Your task to perform on an android device: add a contact in the contacts app Image 0: 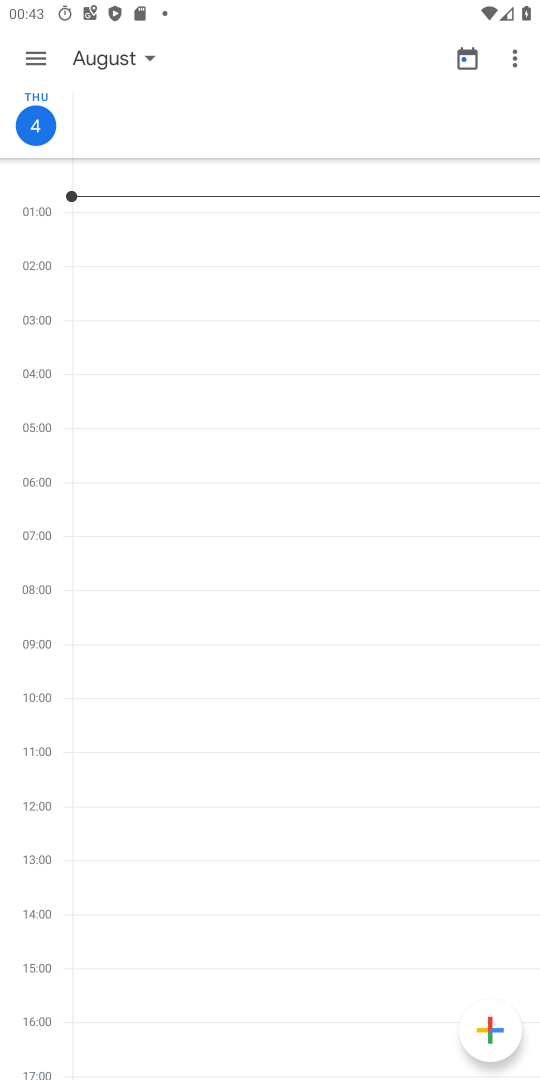
Step 0: press home button
Your task to perform on an android device: add a contact in the contacts app Image 1: 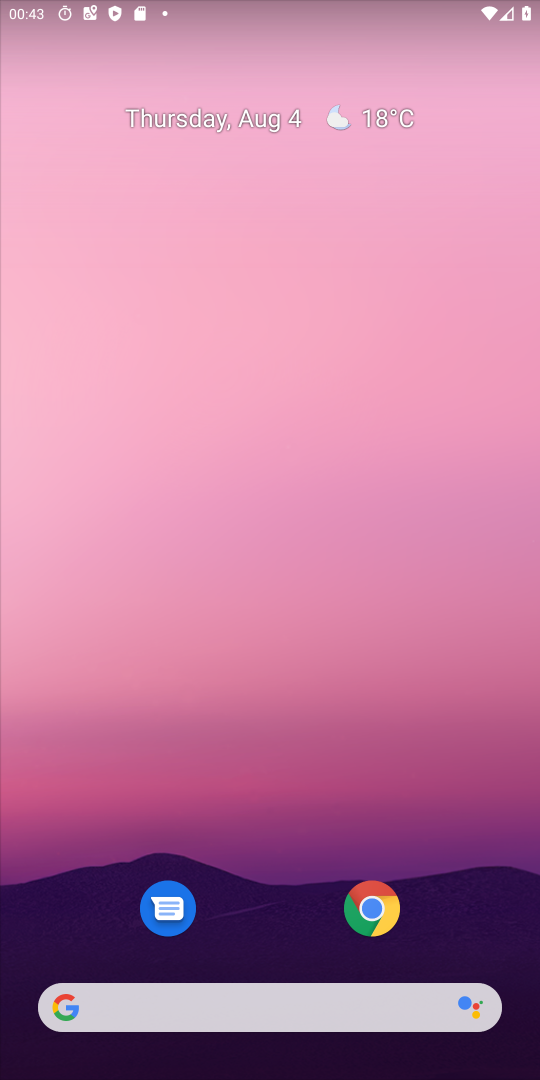
Step 1: click (268, 305)
Your task to perform on an android device: add a contact in the contacts app Image 2: 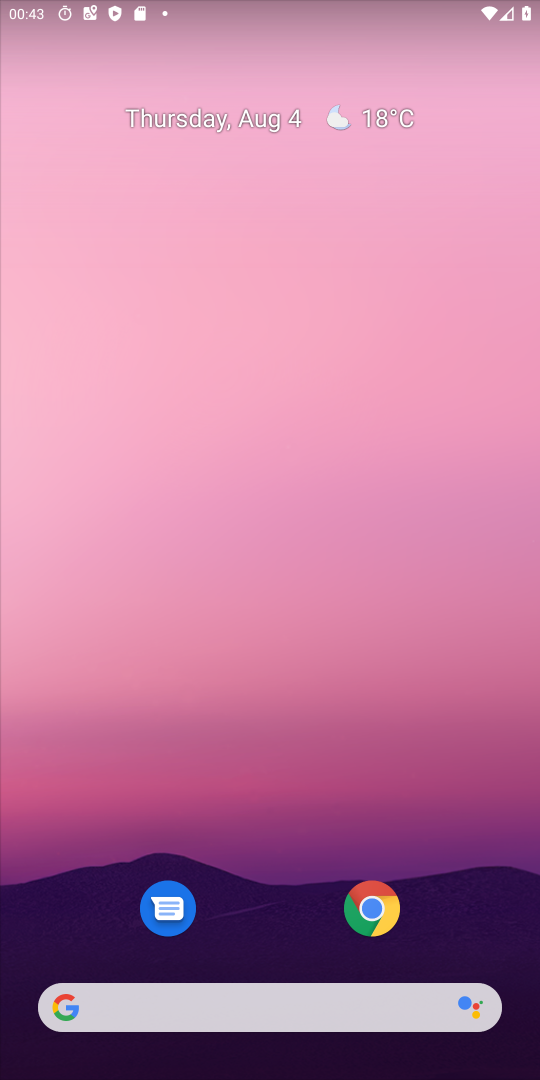
Step 2: drag from (290, 1006) to (252, 301)
Your task to perform on an android device: add a contact in the contacts app Image 3: 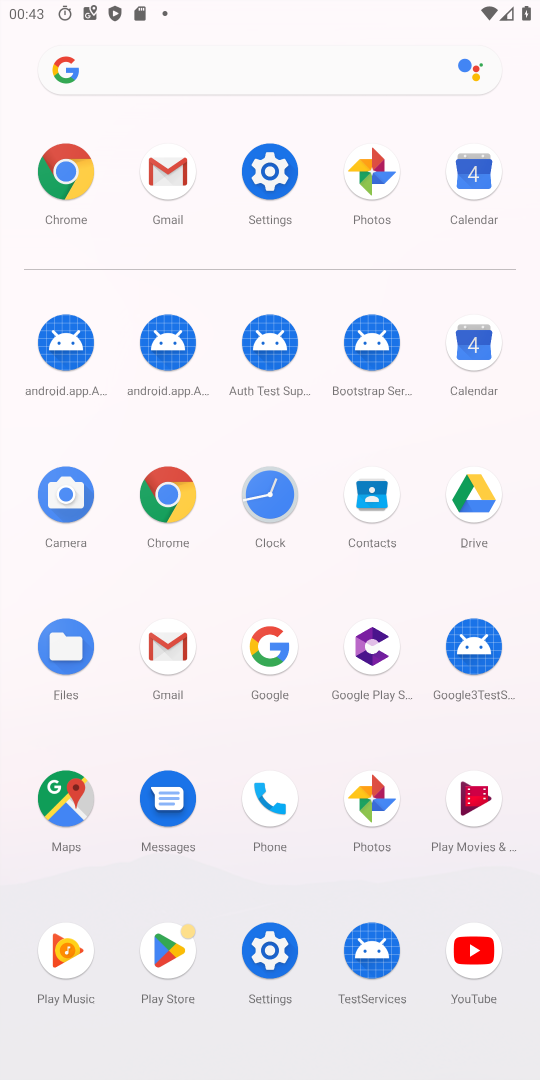
Step 3: click (260, 804)
Your task to perform on an android device: add a contact in the contacts app Image 4: 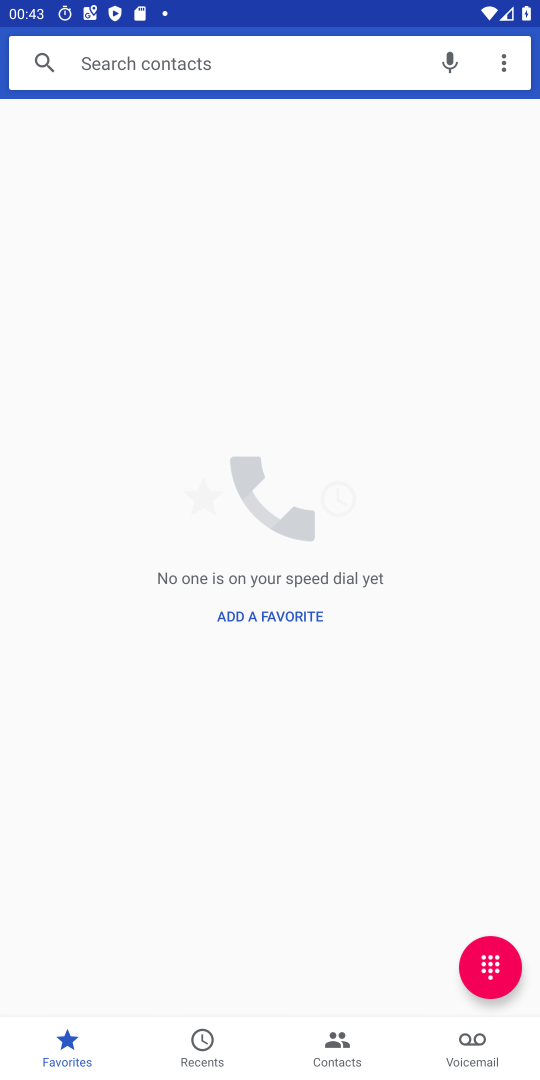
Step 4: click (342, 1045)
Your task to perform on an android device: add a contact in the contacts app Image 5: 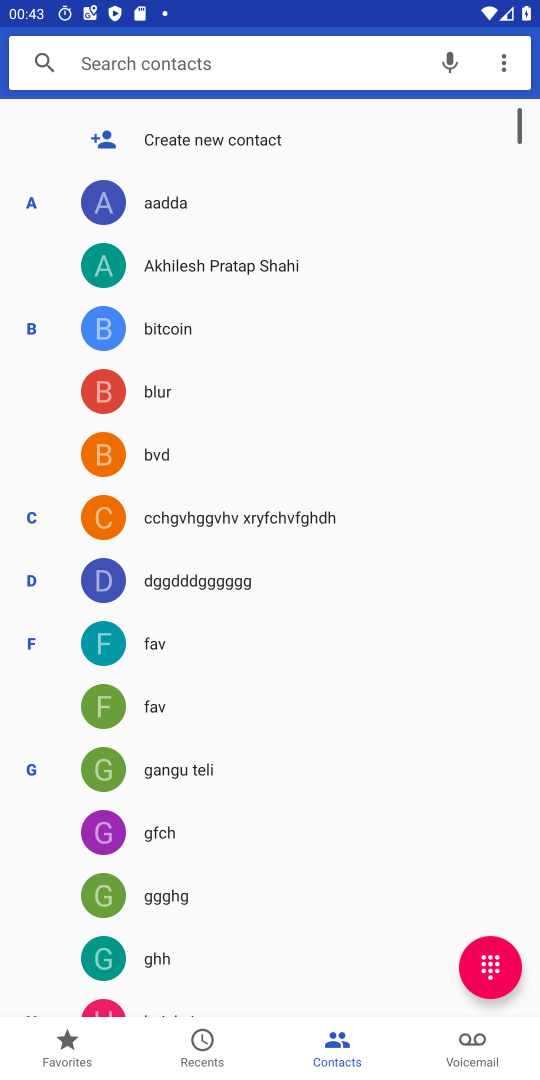
Step 5: click (226, 152)
Your task to perform on an android device: add a contact in the contacts app Image 6: 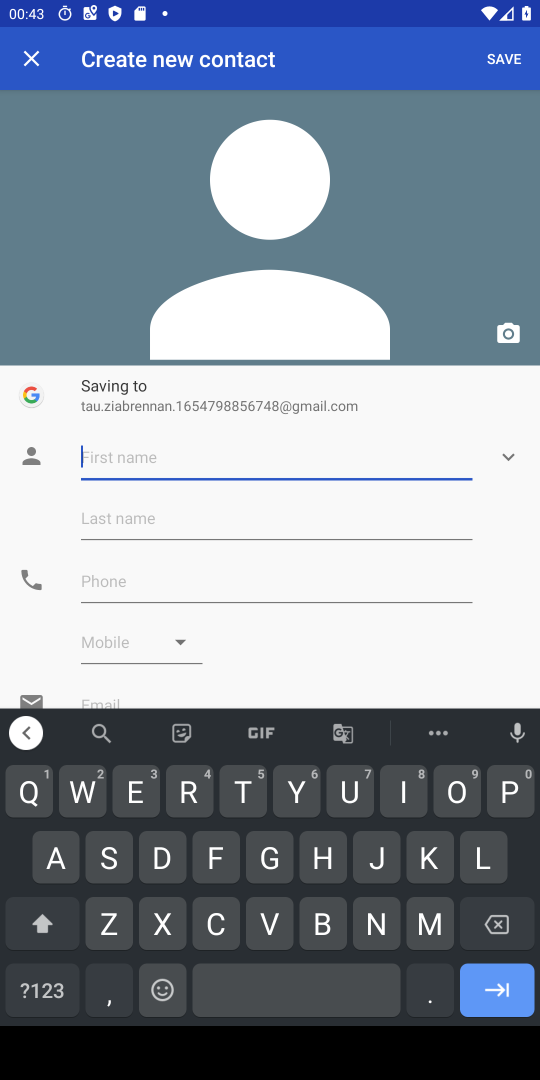
Step 6: drag from (180, 840) to (302, 835)
Your task to perform on an android device: add a contact in the contacts app Image 7: 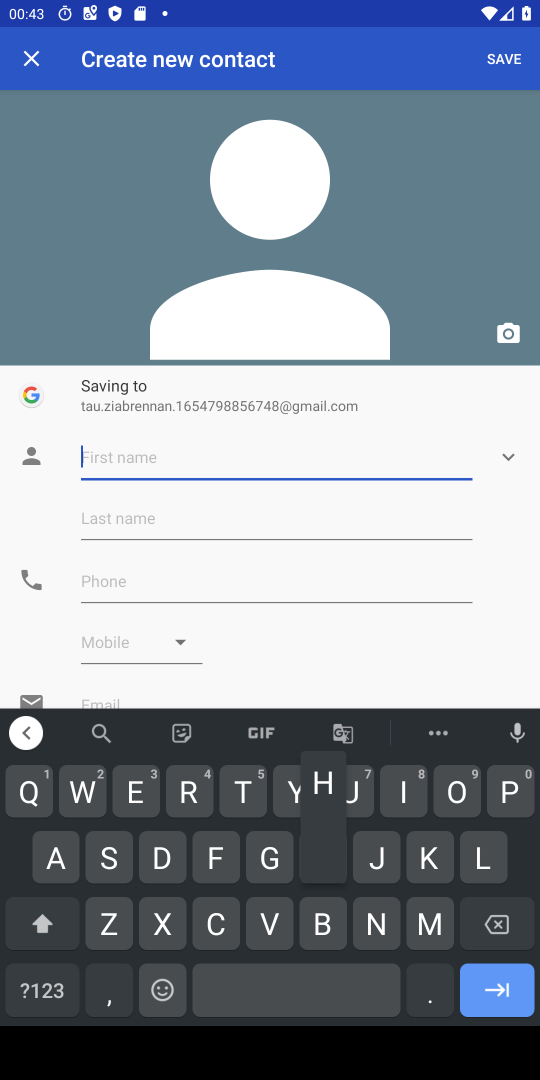
Step 7: click (269, 856)
Your task to perform on an android device: add a contact in the contacts app Image 8: 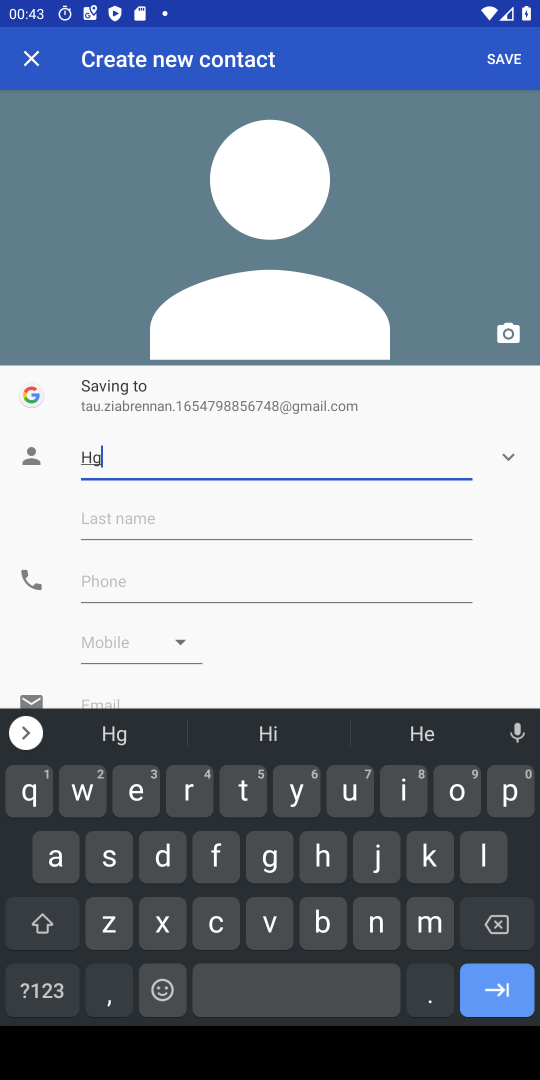
Step 8: click (135, 578)
Your task to perform on an android device: add a contact in the contacts app Image 9: 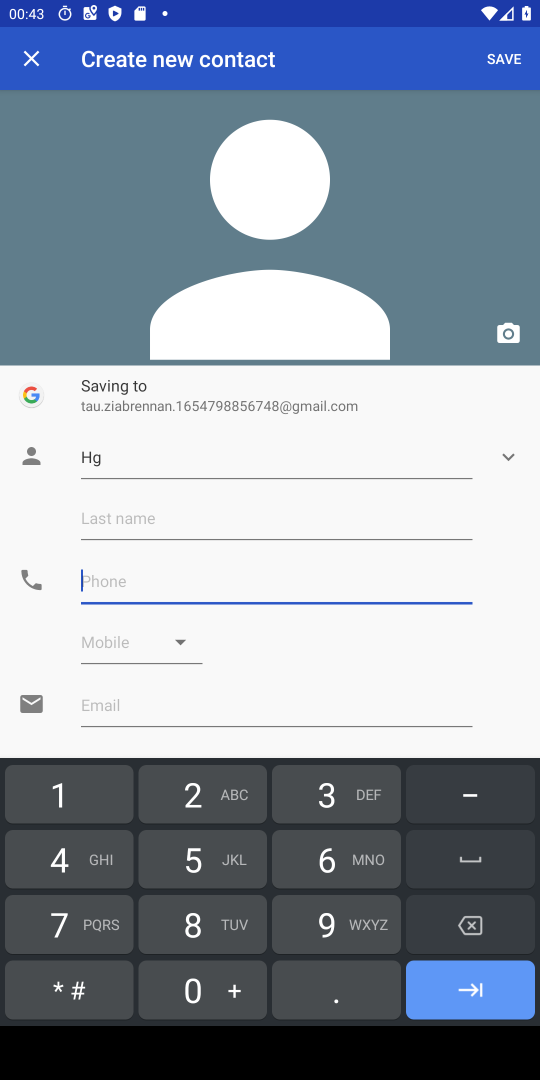
Step 9: drag from (256, 942) to (204, 950)
Your task to perform on an android device: add a contact in the contacts app Image 10: 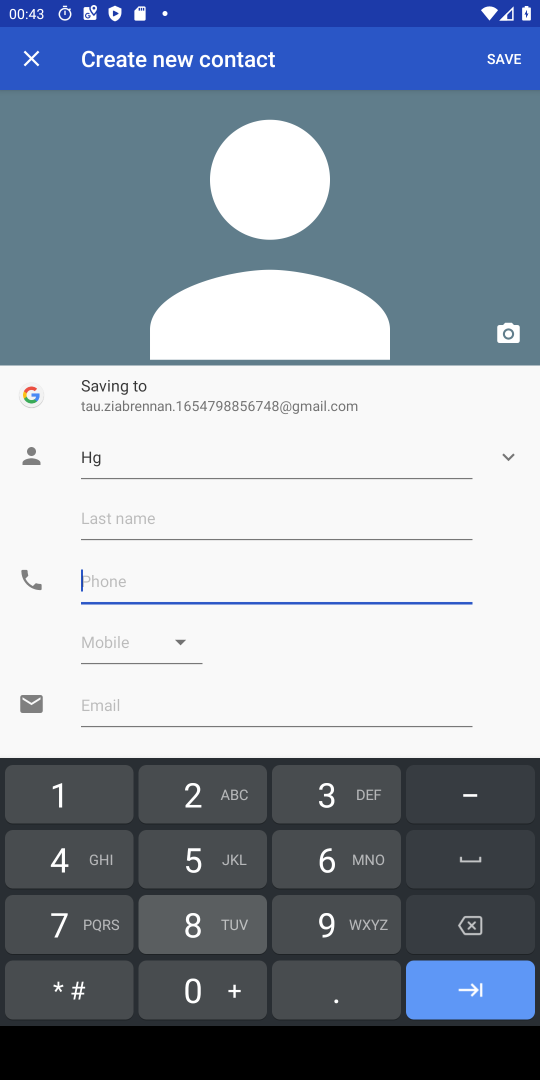
Step 10: click (318, 905)
Your task to perform on an android device: add a contact in the contacts app Image 11: 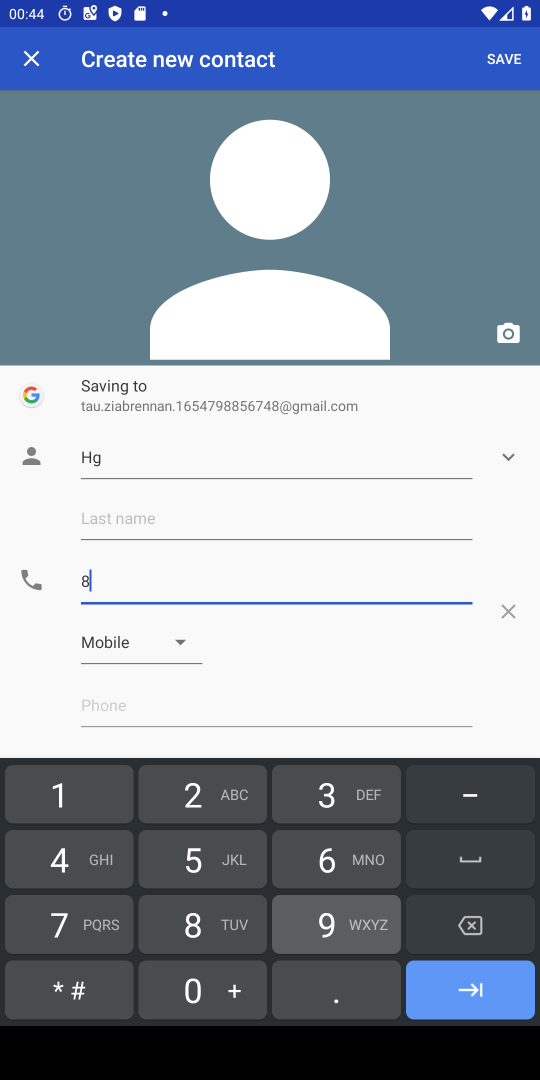
Step 11: click (205, 923)
Your task to perform on an android device: add a contact in the contacts app Image 12: 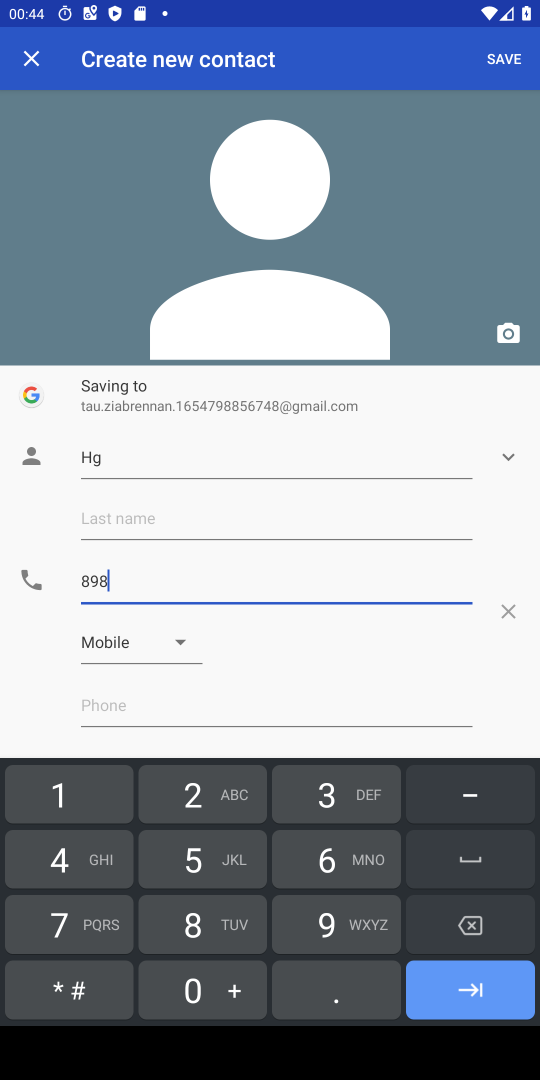
Step 12: click (330, 886)
Your task to perform on an android device: add a contact in the contacts app Image 13: 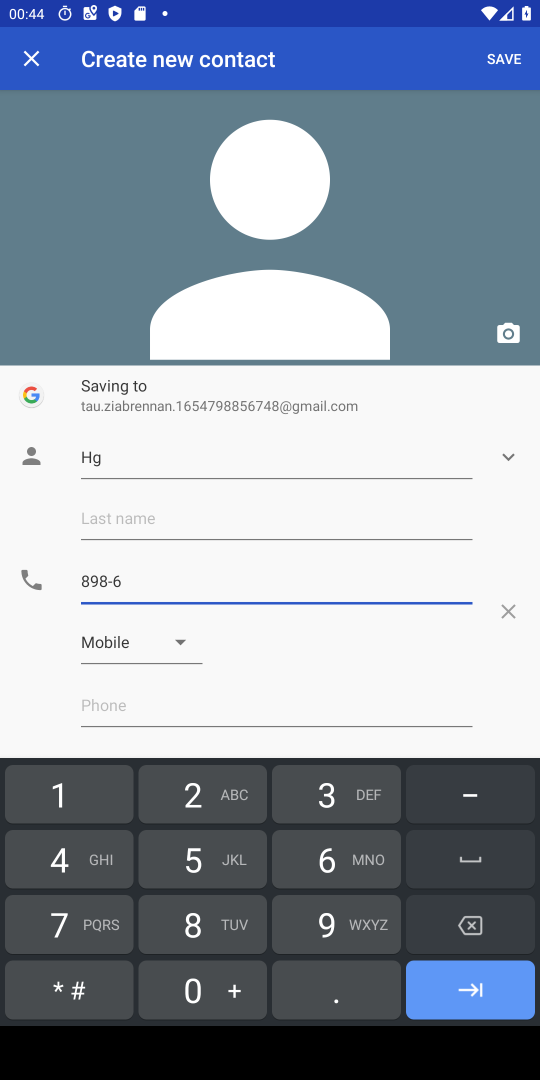
Step 13: click (512, 56)
Your task to perform on an android device: add a contact in the contacts app Image 14: 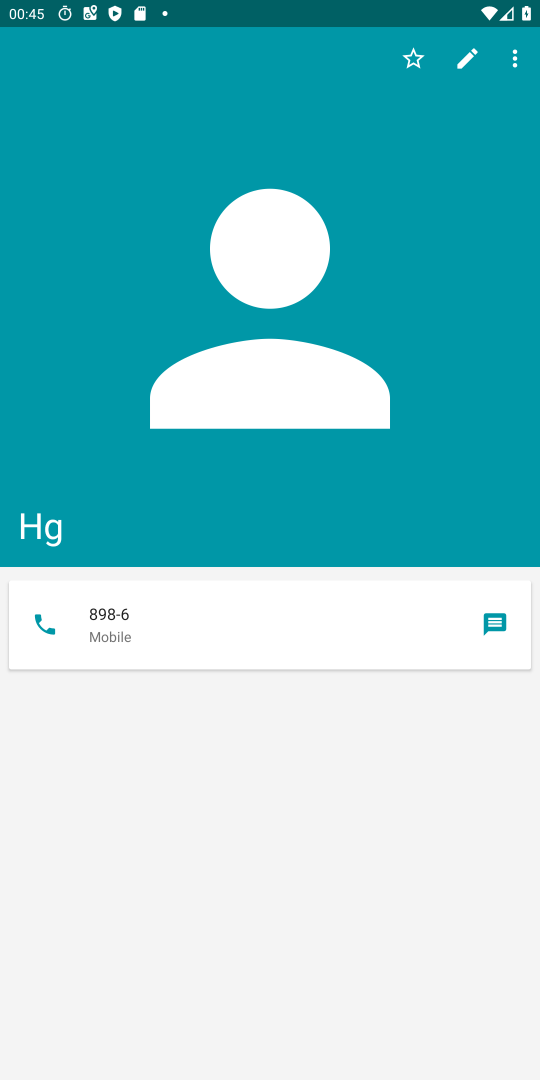
Step 14: task complete